Your task to perform on an android device: Open calendar and show me the fourth week of next month Image 0: 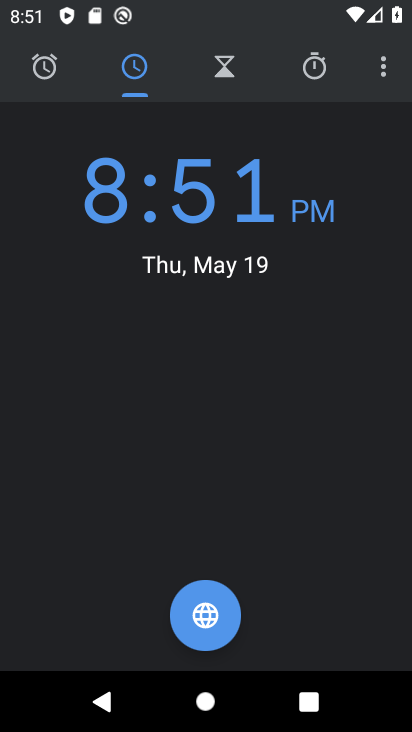
Step 0: press home button
Your task to perform on an android device: Open calendar and show me the fourth week of next month Image 1: 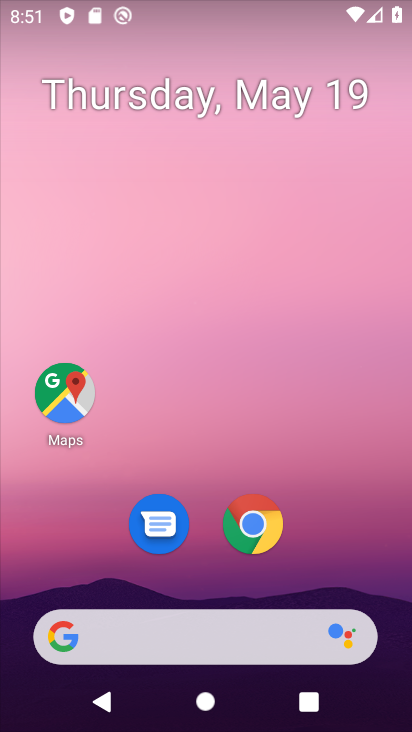
Step 1: drag from (230, 452) to (214, 51)
Your task to perform on an android device: Open calendar and show me the fourth week of next month Image 2: 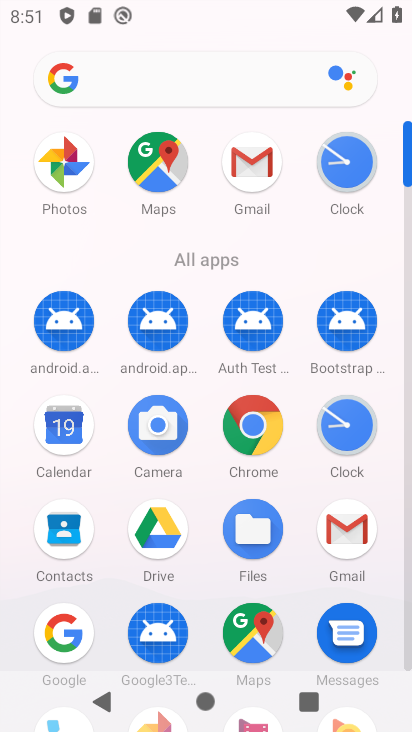
Step 2: click (53, 423)
Your task to perform on an android device: Open calendar and show me the fourth week of next month Image 3: 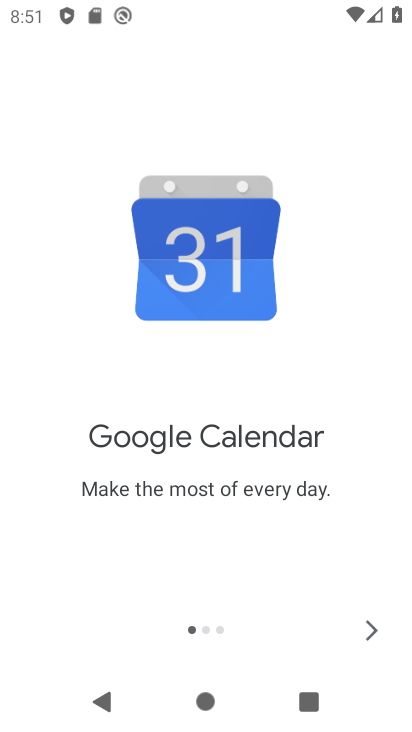
Step 3: click (365, 624)
Your task to perform on an android device: Open calendar and show me the fourth week of next month Image 4: 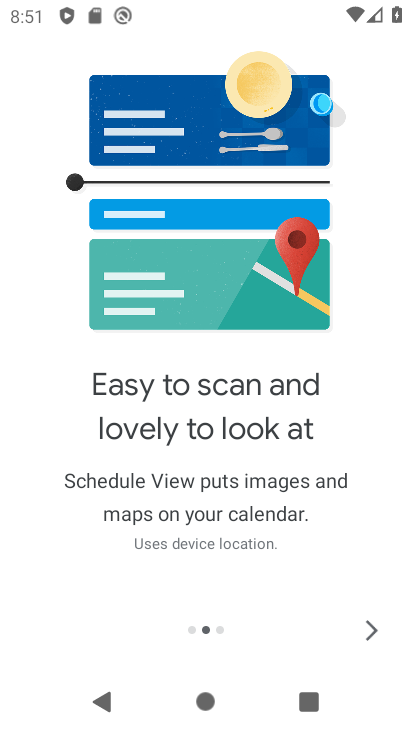
Step 4: click (365, 622)
Your task to perform on an android device: Open calendar and show me the fourth week of next month Image 5: 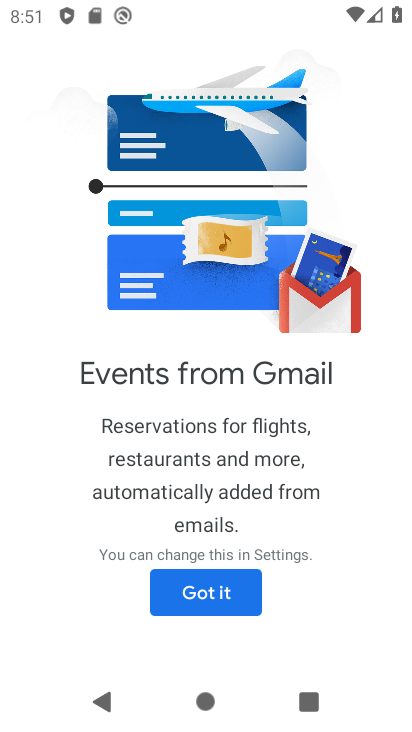
Step 5: click (250, 589)
Your task to perform on an android device: Open calendar and show me the fourth week of next month Image 6: 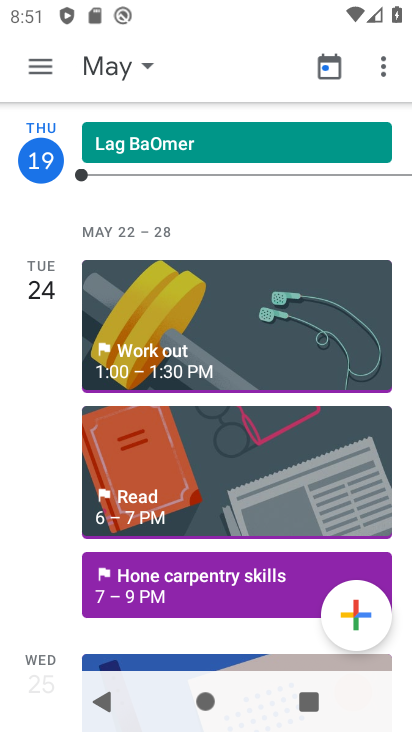
Step 6: click (48, 65)
Your task to perform on an android device: Open calendar and show me the fourth week of next month Image 7: 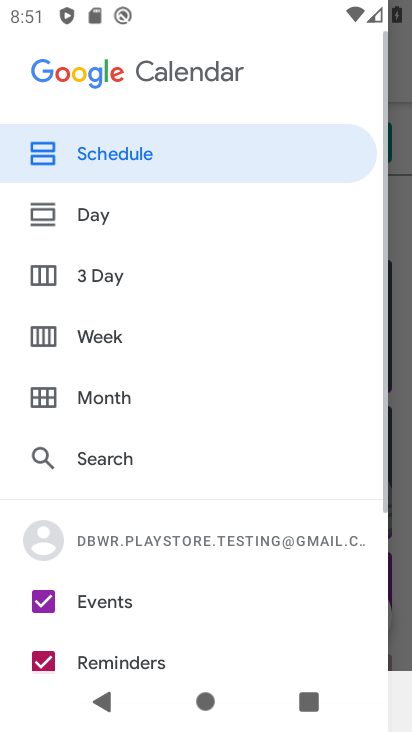
Step 7: click (94, 391)
Your task to perform on an android device: Open calendar and show me the fourth week of next month Image 8: 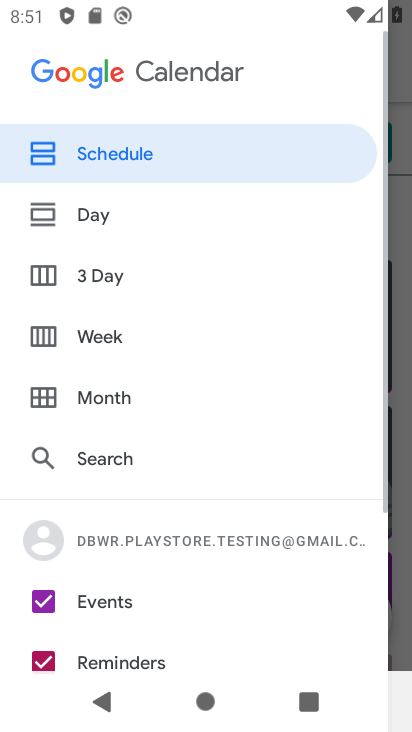
Step 8: click (47, 387)
Your task to perform on an android device: Open calendar and show me the fourth week of next month Image 9: 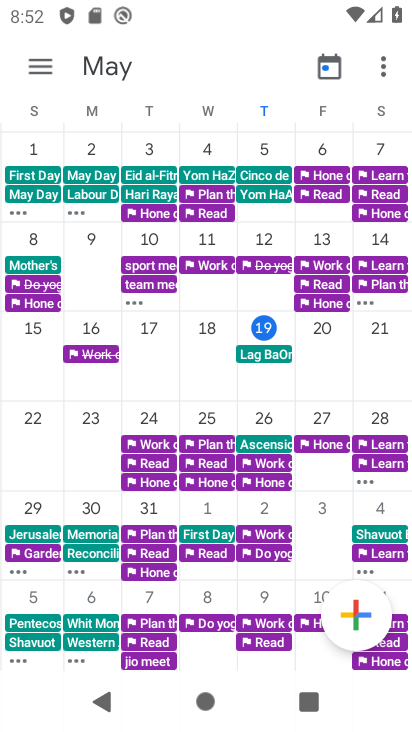
Step 9: drag from (384, 383) to (1, 392)
Your task to perform on an android device: Open calendar and show me the fourth week of next month Image 10: 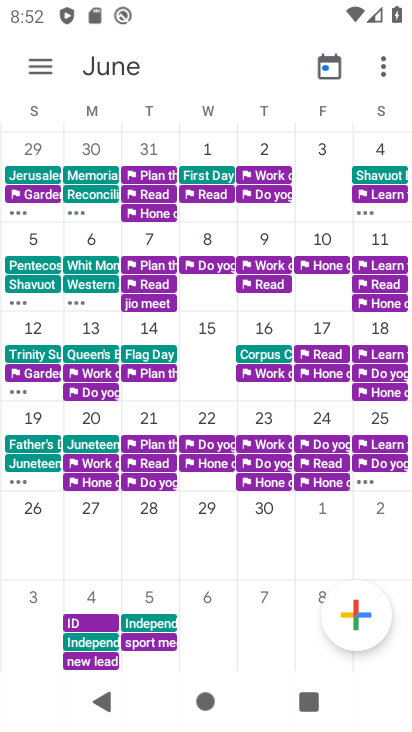
Step 10: click (41, 504)
Your task to perform on an android device: Open calendar and show me the fourth week of next month Image 11: 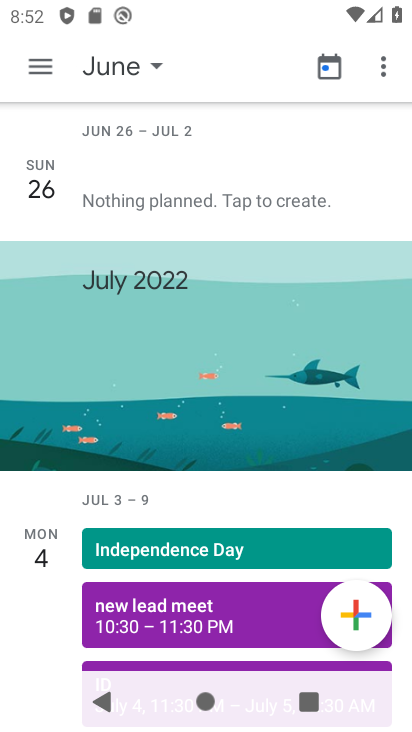
Step 11: click (37, 64)
Your task to perform on an android device: Open calendar and show me the fourth week of next month Image 12: 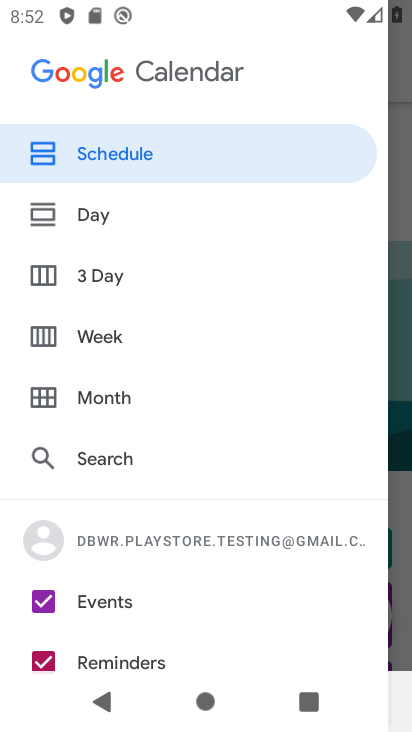
Step 12: click (90, 331)
Your task to perform on an android device: Open calendar and show me the fourth week of next month Image 13: 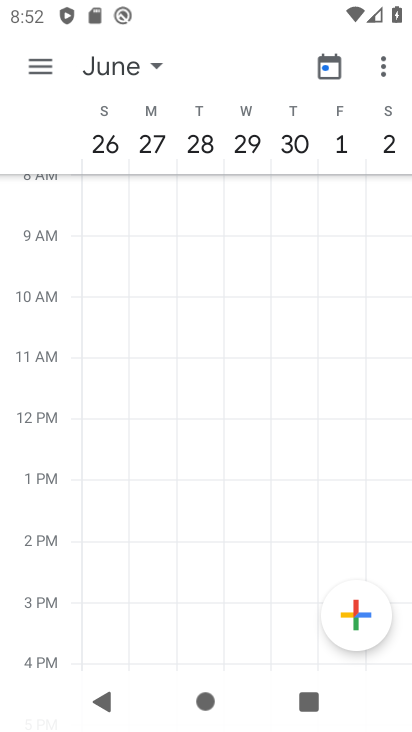
Step 13: task complete